Your task to perform on an android device: Search for panasonic triple a on costco, select the first entry, add it to the cart, then select checkout. Image 0: 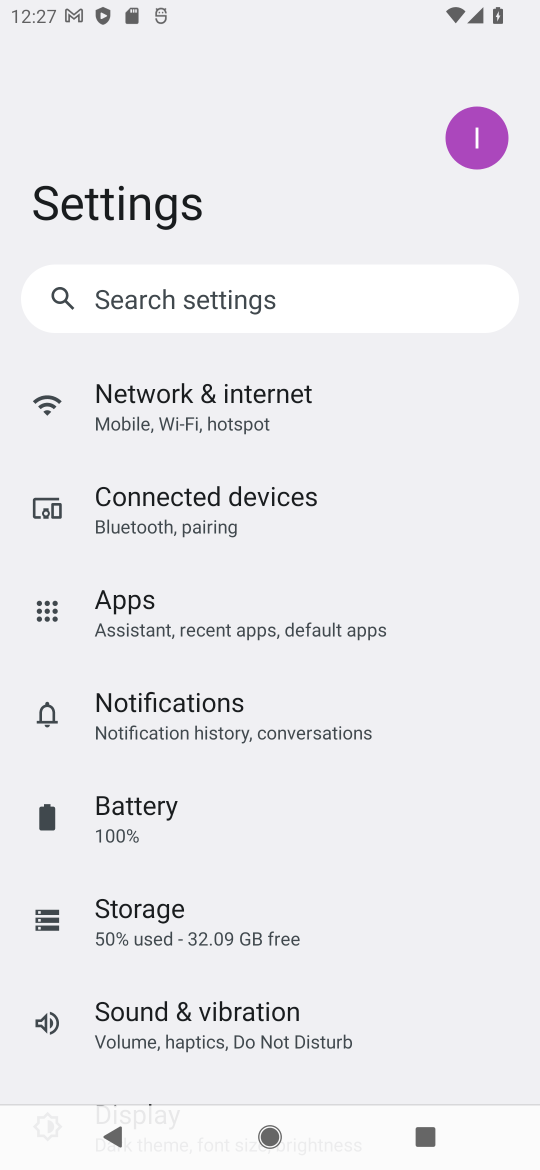
Step 0: press home button
Your task to perform on an android device: Search for panasonic triple a on costco, select the first entry, add it to the cart, then select checkout. Image 1: 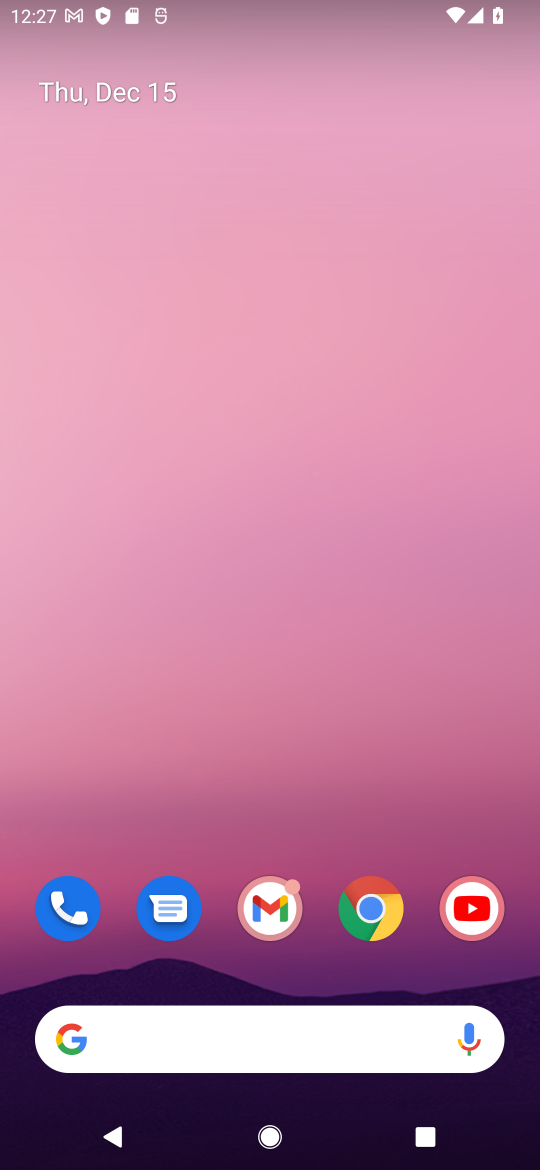
Step 1: click (371, 919)
Your task to perform on an android device: Search for panasonic triple a on costco, select the first entry, add it to the cart, then select checkout. Image 2: 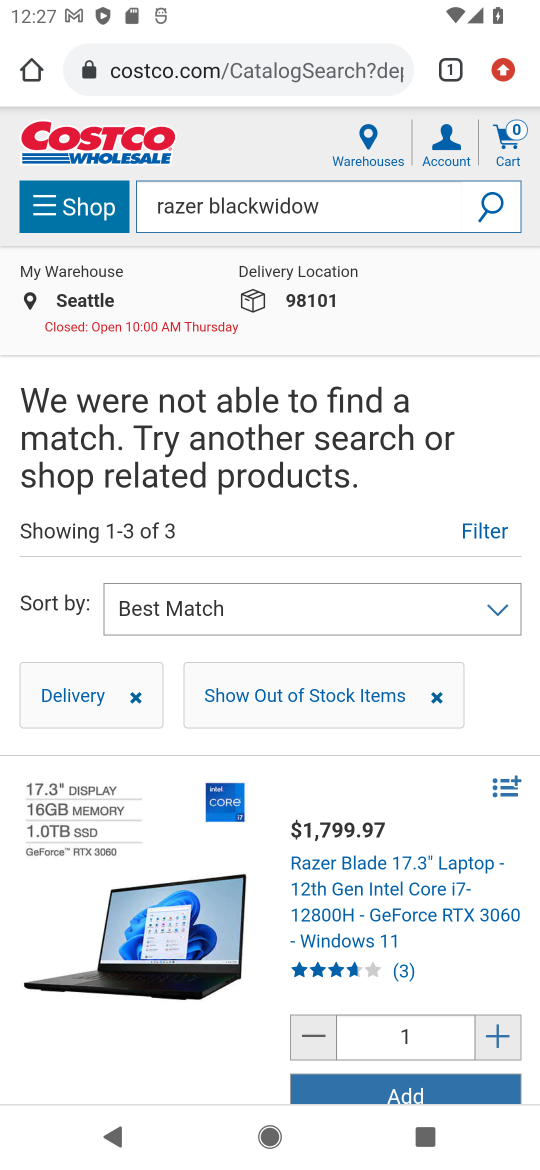
Step 2: click (203, 200)
Your task to perform on an android device: Search for panasonic triple a on costco, select the first entry, add it to the cart, then select checkout. Image 3: 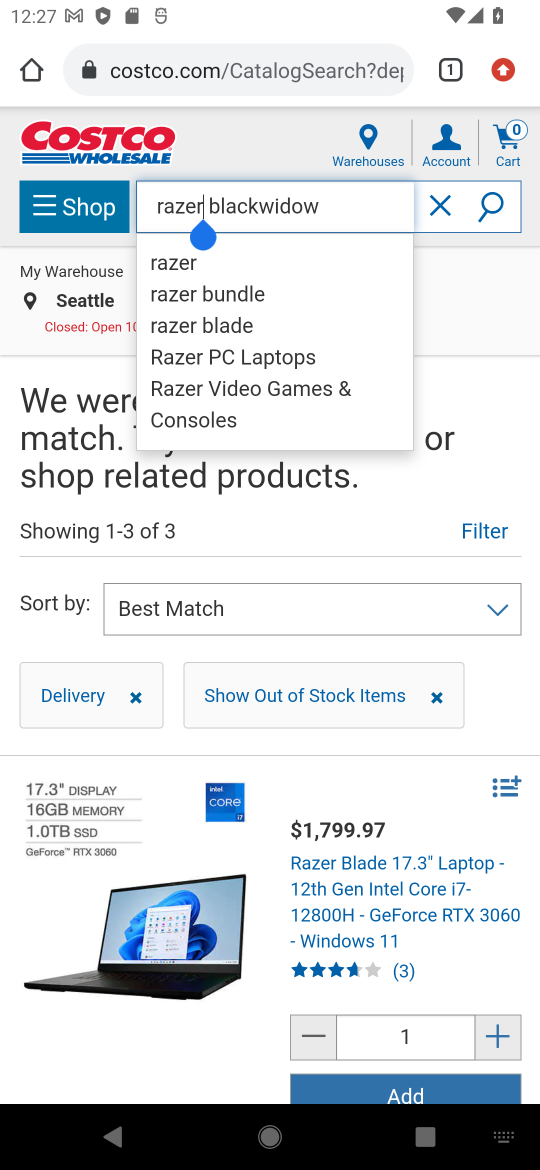
Step 3: click (453, 204)
Your task to perform on an android device: Search for panasonic triple a on costco, select the first entry, add it to the cart, then select checkout. Image 4: 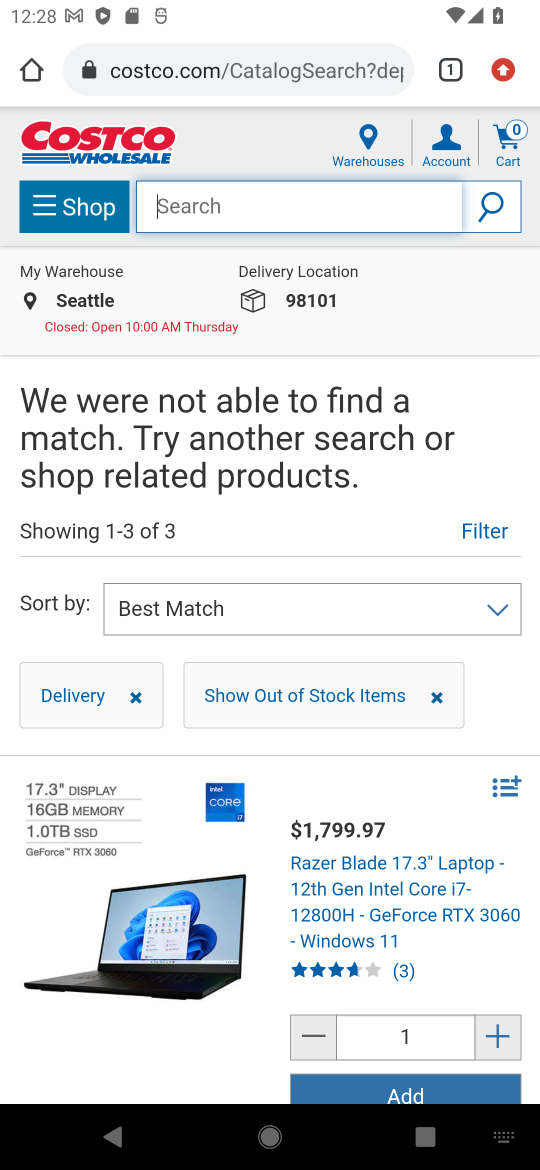
Step 4: type "panasonic triple a"
Your task to perform on an android device: Search for panasonic triple a on costco, select the first entry, add it to the cart, then select checkout. Image 5: 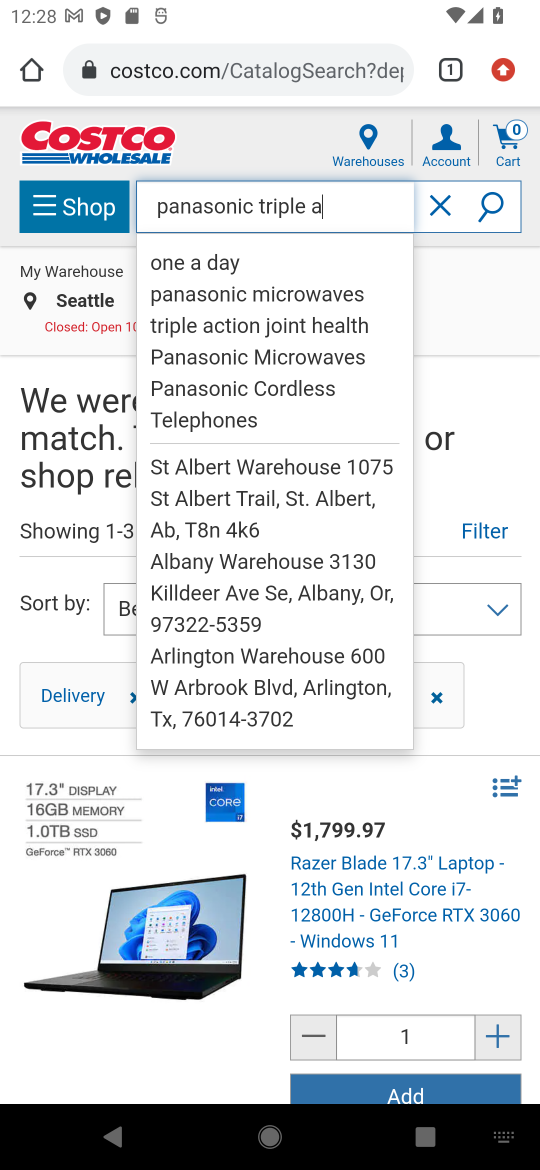
Step 5: click (497, 211)
Your task to perform on an android device: Search for panasonic triple a on costco, select the first entry, add it to the cart, then select checkout. Image 6: 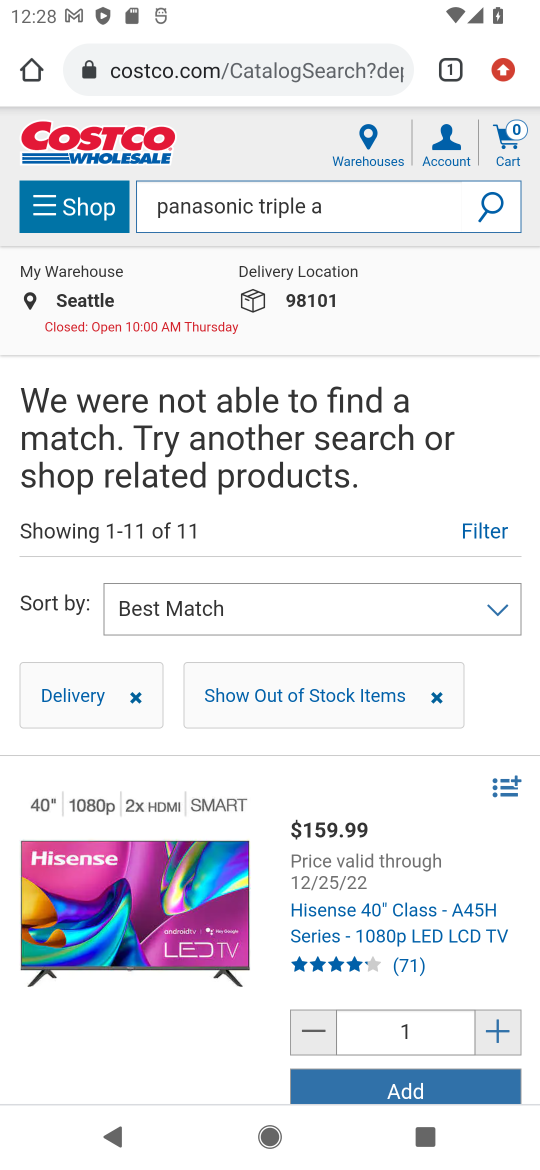
Step 6: task complete